Your task to perform on an android device: Go to Yahoo.com Image 0: 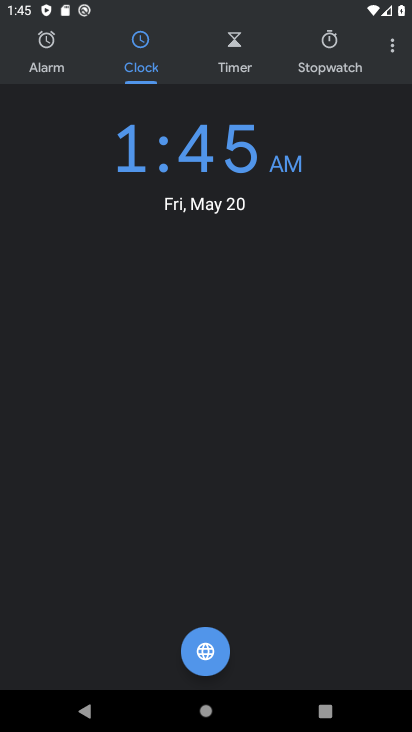
Step 0: press back button
Your task to perform on an android device: Go to Yahoo.com Image 1: 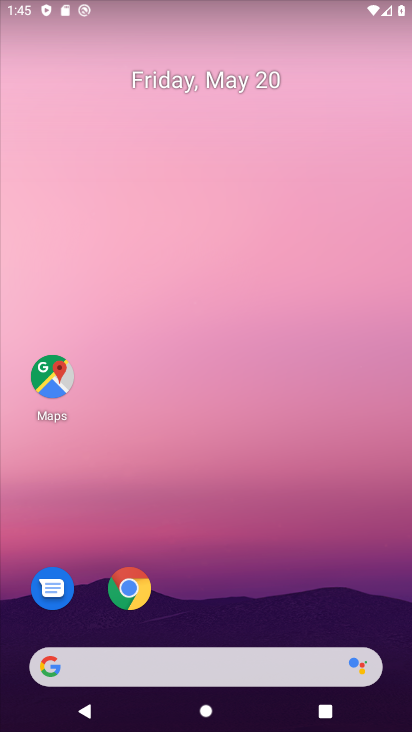
Step 1: drag from (231, 598) to (205, 172)
Your task to perform on an android device: Go to Yahoo.com Image 2: 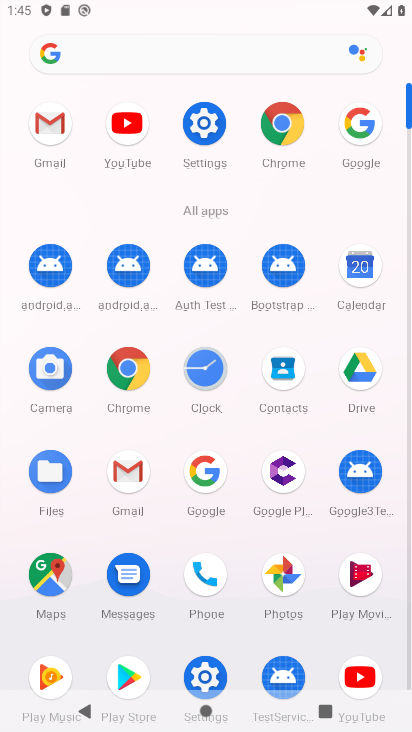
Step 2: click (287, 132)
Your task to perform on an android device: Go to Yahoo.com Image 3: 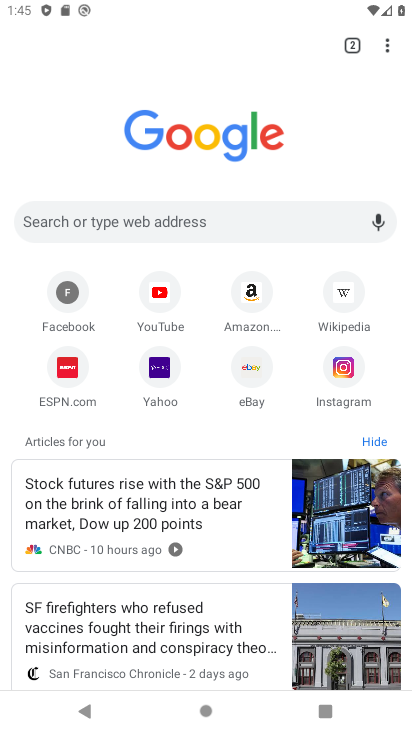
Step 3: click (158, 385)
Your task to perform on an android device: Go to Yahoo.com Image 4: 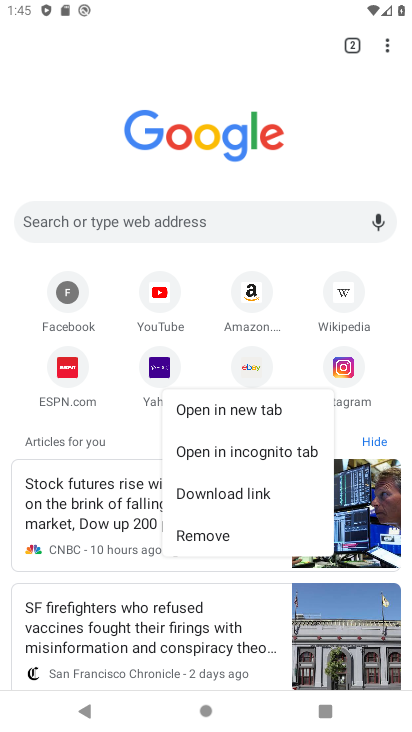
Step 4: click (158, 385)
Your task to perform on an android device: Go to Yahoo.com Image 5: 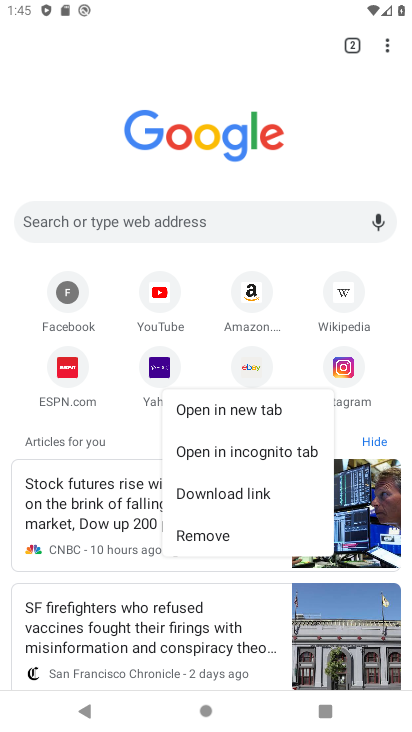
Step 5: click (158, 385)
Your task to perform on an android device: Go to Yahoo.com Image 6: 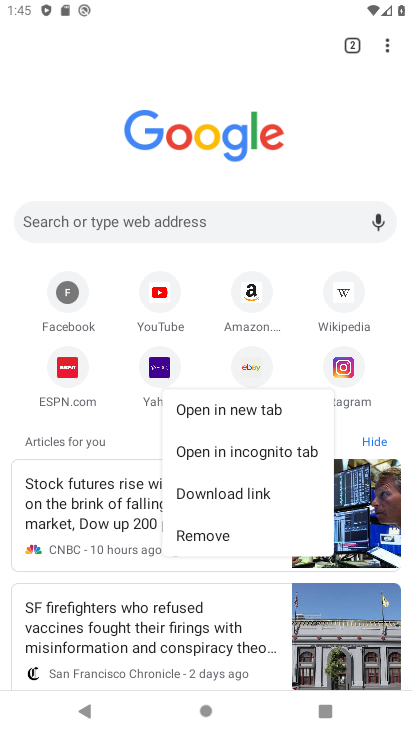
Step 6: click (159, 383)
Your task to perform on an android device: Go to Yahoo.com Image 7: 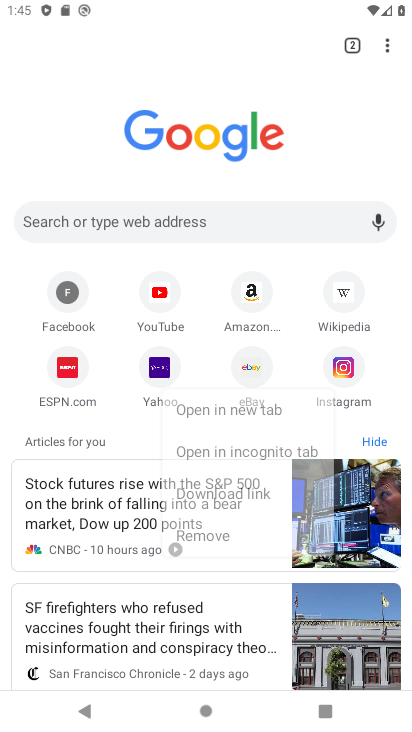
Step 7: click (159, 377)
Your task to perform on an android device: Go to Yahoo.com Image 8: 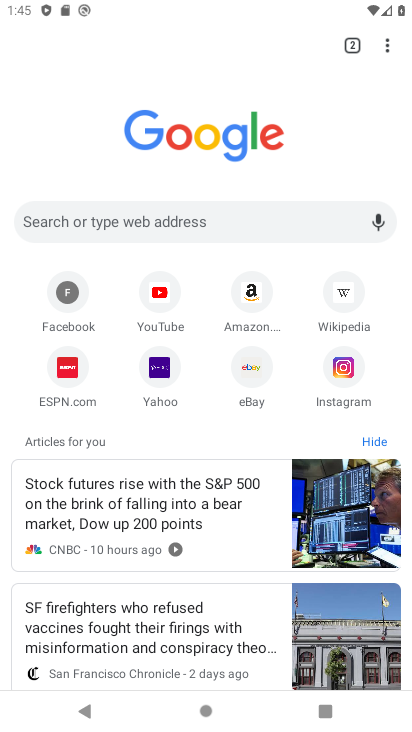
Step 8: click (162, 368)
Your task to perform on an android device: Go to Yahoo.com Image 9: 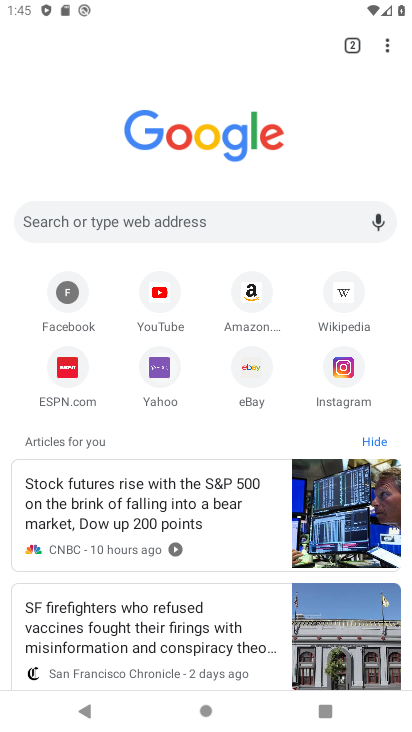
Step 9: click (162, 368)
Your task to perform on an android device: Go to Yahoo.com Image 10: 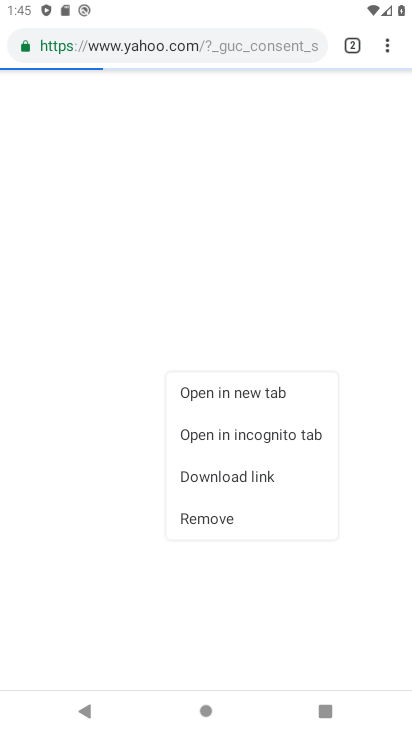
Step 10: click (161, 367)
Your task to perform on an android device: Go to Yahoo.com Image 11: 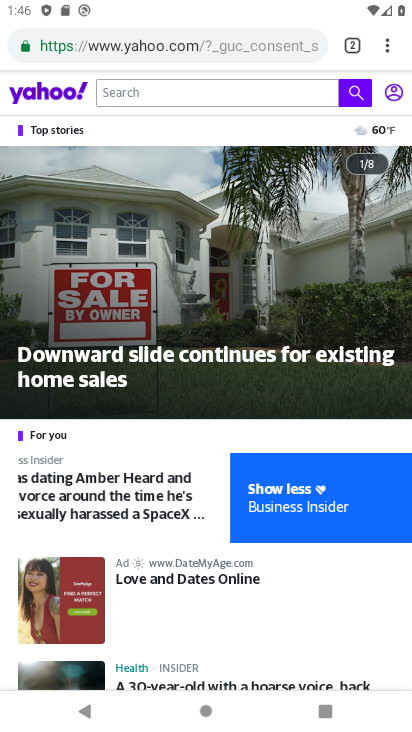
Step 11: task complete